Your task to perform on an android device: Open the web browser Image 0: 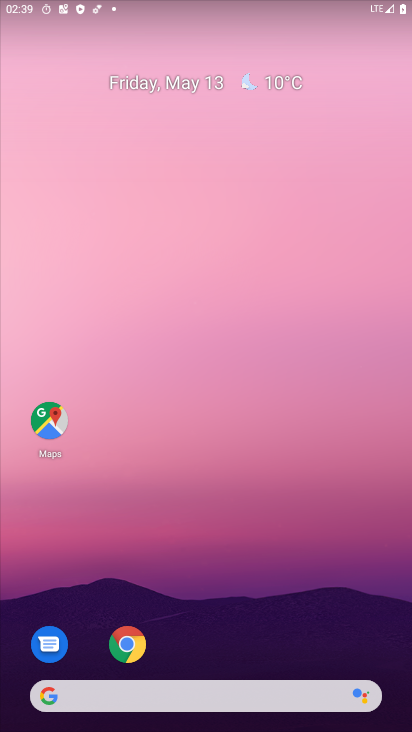
Step 0: drag from (240, 697) to (259, 9)
Your task to perform on an android device: Open the web browser Image 1: 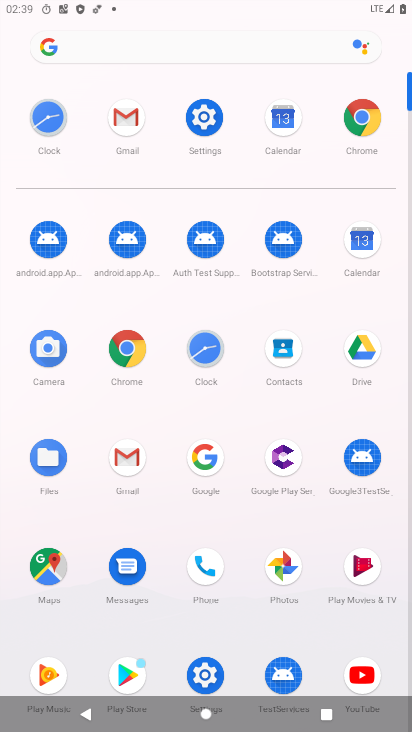
Step 1: click (115, 349)
Your task to perform on an android device: Open the web browser Image 2: 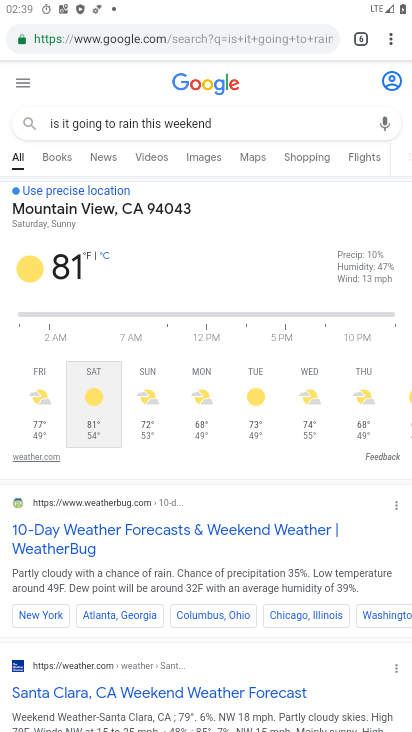
Step 2: task complete